Your task to perform on an android device: check data usage Image 0: 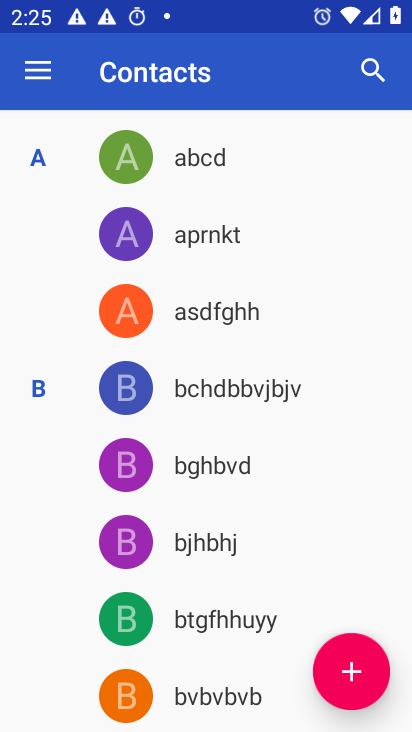
Step 0: press home button
Your task to perform on an android device: check data usage Image 1: 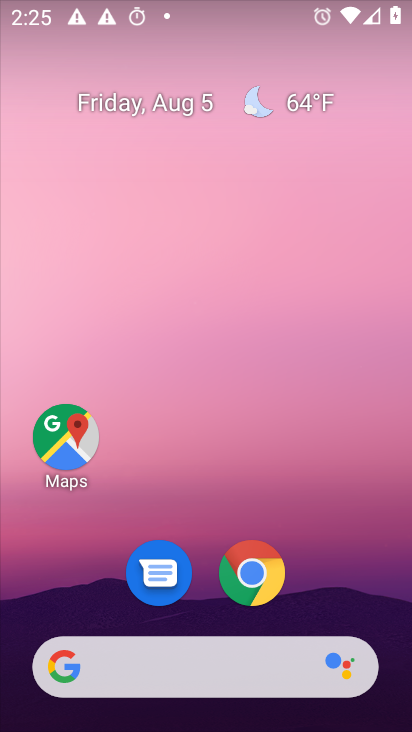
Step 1: drag from (347, 591) to (346, 236)
Your task to perform on an android device: check data usage Image 2: 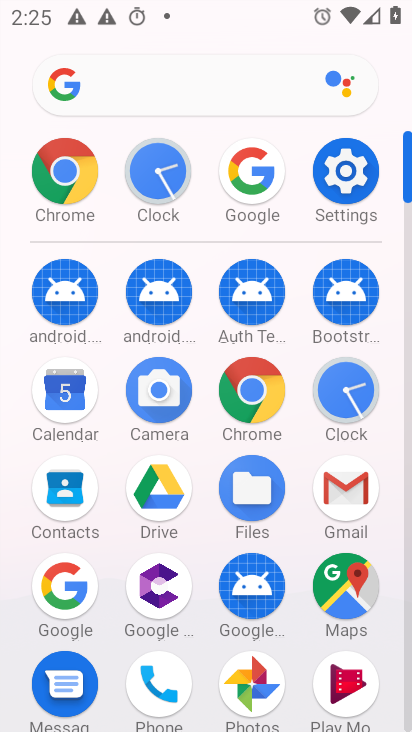
Step 2: click (348, 170)
Your task to perform on an android device: check data usage Image 3: 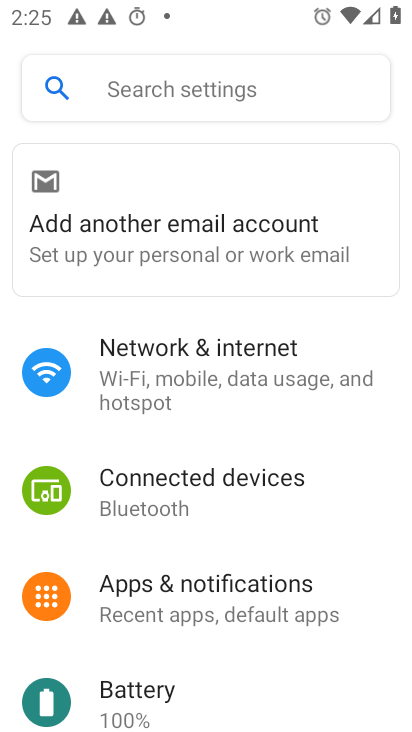
Step 3: drag from (350, 545) to (346, 429)
Your task to perform on an android device: check data usage Image 4: 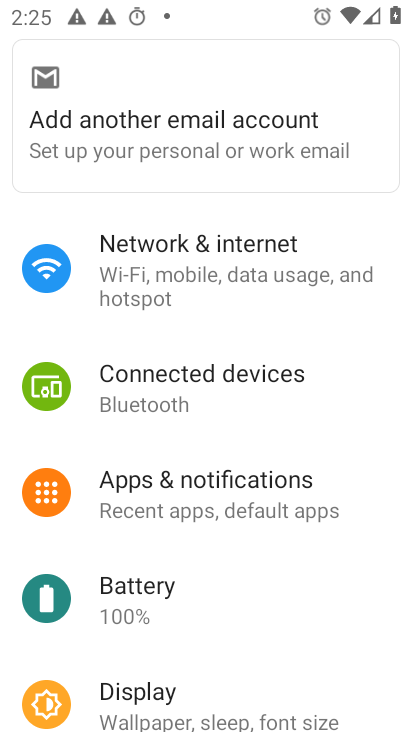
Step 4: drag from (328, 578) to (344, 433)
Your task to perform on an android device: check data usage Image 5: 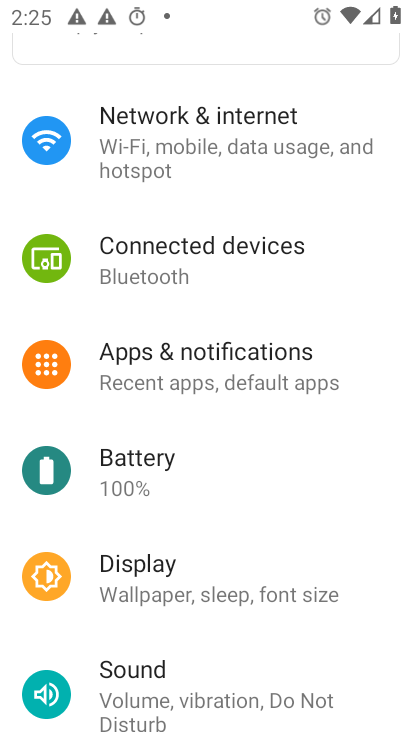
Step 5: drag from (367, 519) to (354, 378)
Your task to perform on an android device: check data usage Image 6: 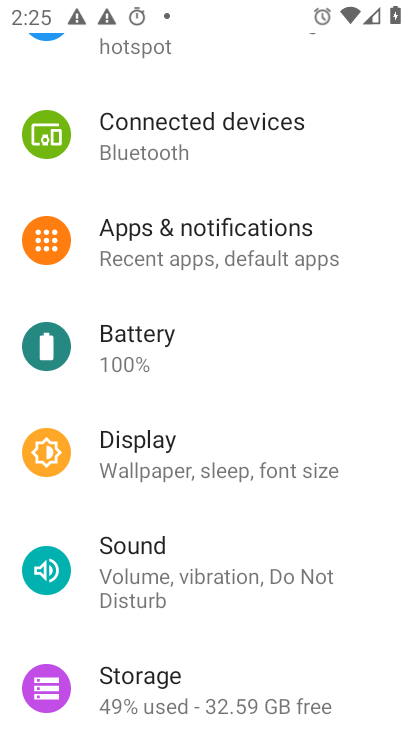
Step 6: drag from (353, 606) to (357, 462)
Your task to perform on an android device: check data usage Image 7: 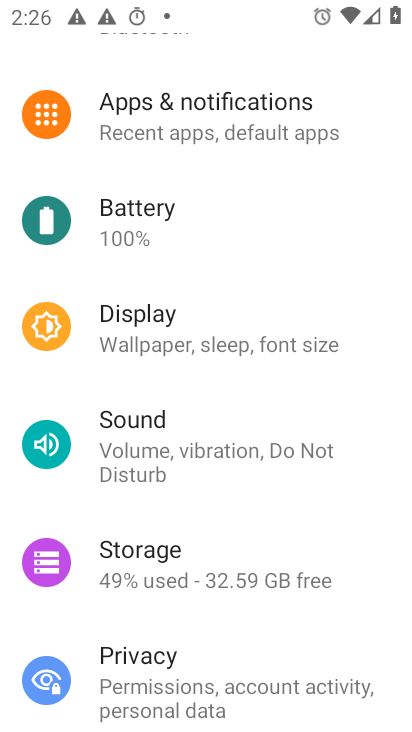
Step 7: drag from (337, 600) to (353, 348)
Your task to perform on an android device: check data usage Image 8: 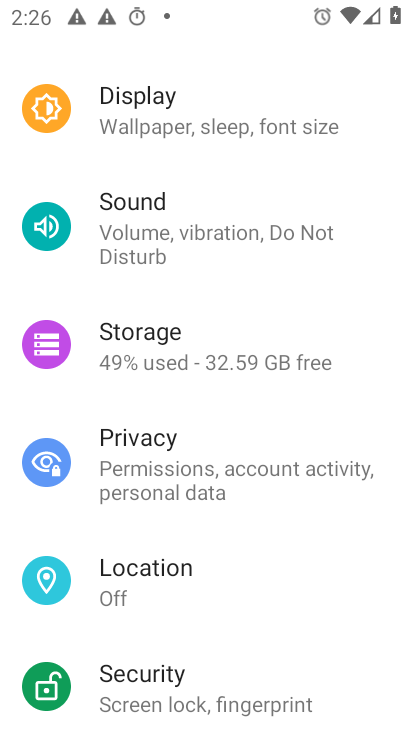
Step 8: drag from (348, 559) to (348, 422)
Your task to perform on an android device: check data usage Image 9: 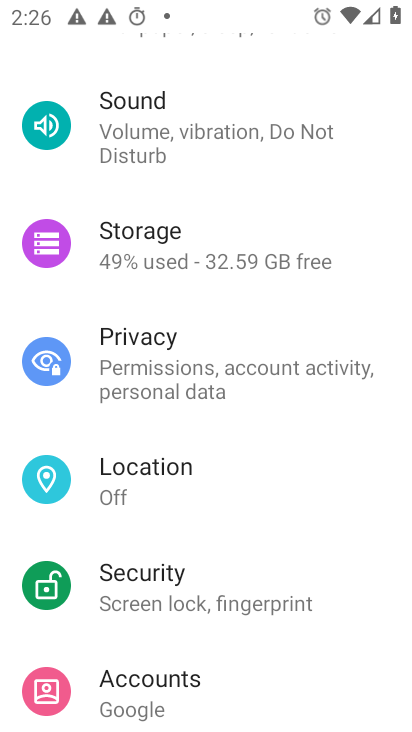
Step 9: drag from (346, 560) to (354, 417)
Your task to perform on an android device: check data usage Image 10: 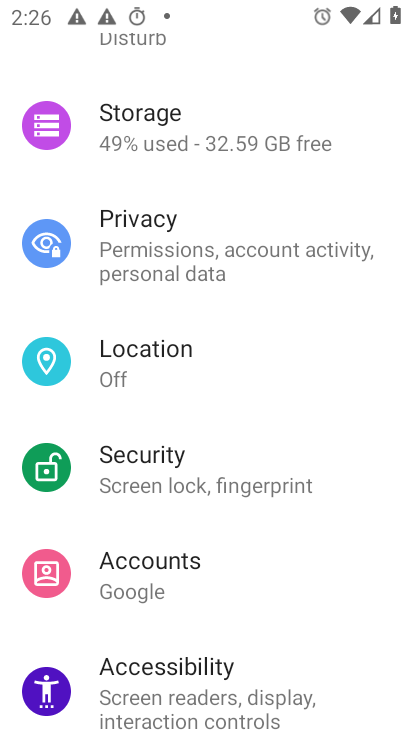
Step 10: drag from (354, 294) to (356, 441)
Your task to perform on an android device: check data usage Image 11: 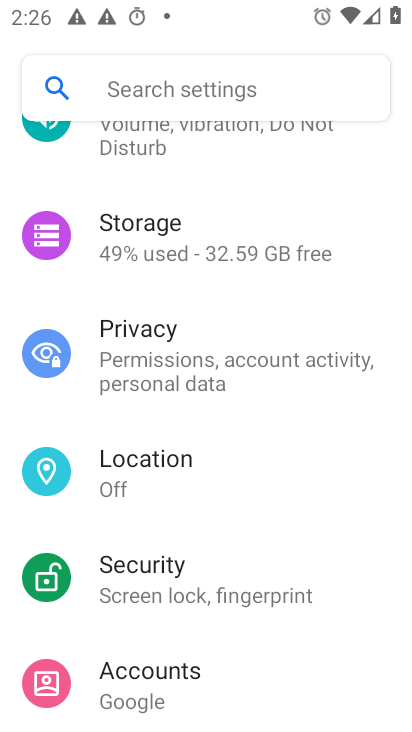
Step 11: drag from (380, 231) to (381, 311)
Your task to perform on an android device: check data usage Image 12: 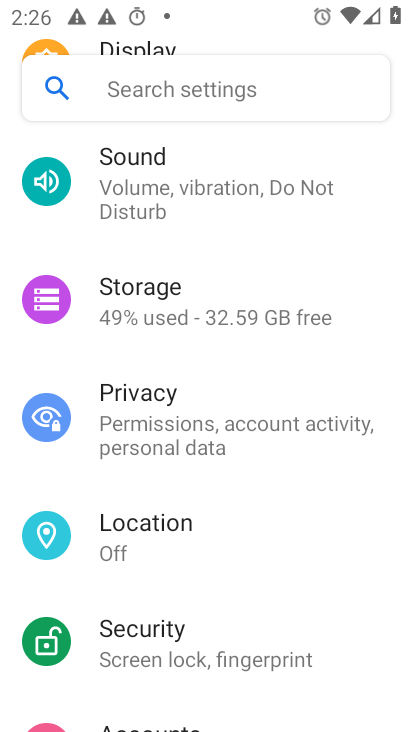
Step 12: drag from (363, 203) to (371, 357)
Your task to perform on an android device: check data usage Image 13: 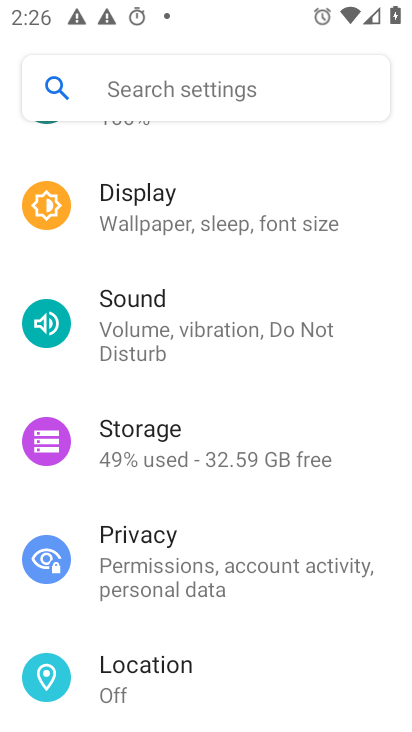
Step 13: drag from (373, 216) to (379, 385)
Your task to perform on an android device: check data usage Image 14: 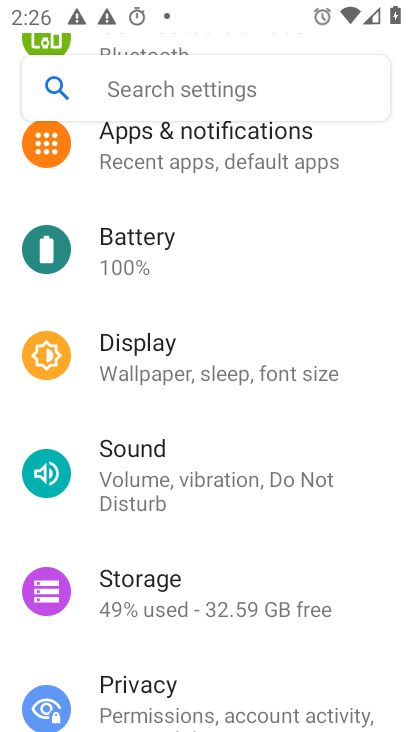
Step 14: drag from (368, 158) to (364, 356)
Your task to perform on an android device: check data usage Image 15: 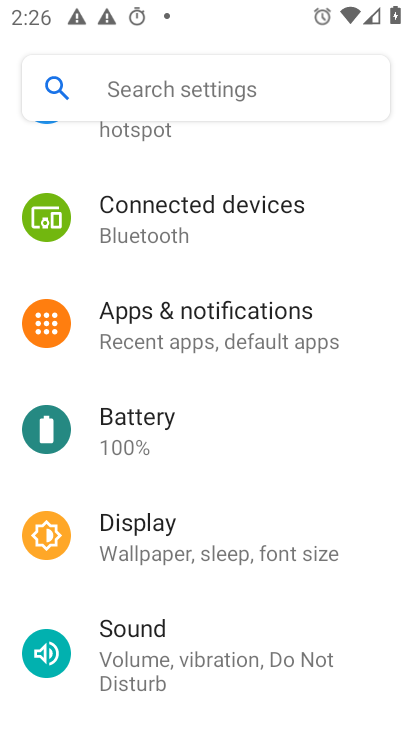
Step 15: drag from (355, 145) to (350, 353)
Your task to perform on an android device: check data usage Image 16: 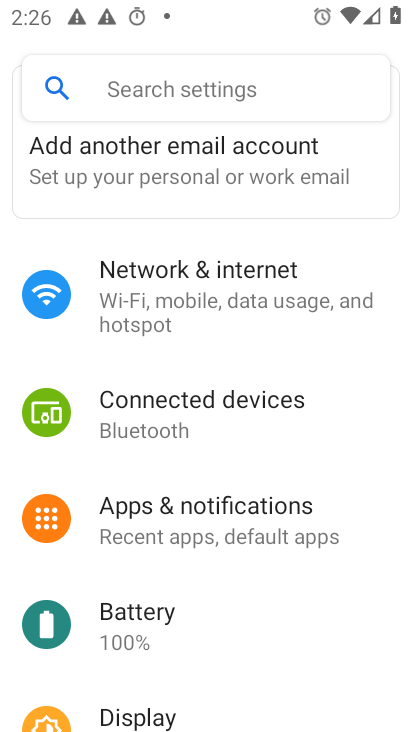
Step 16: click (229, 287)
Your task to perform on an android device: check data usage Image 17: 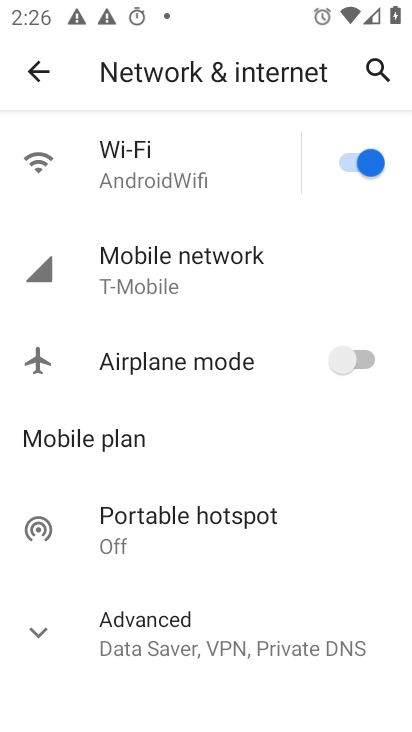
Step 17: click (214, 249)
Your task to perform on an android device: check data usage Image 18: 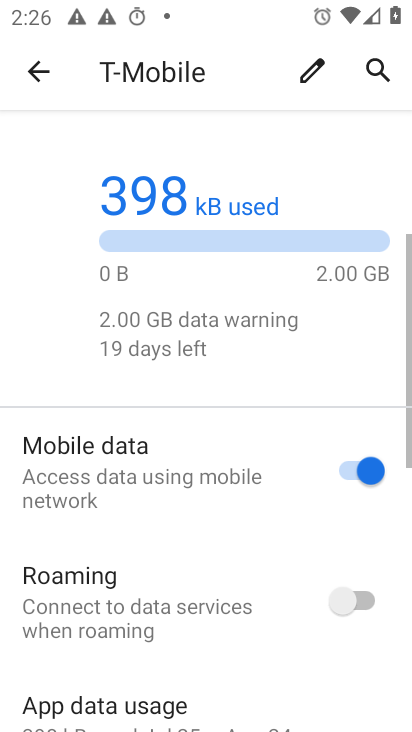
Step 18: drag from (238, 485) to (234, 291)
Your task to perform on an android device: check data usage Image 19: 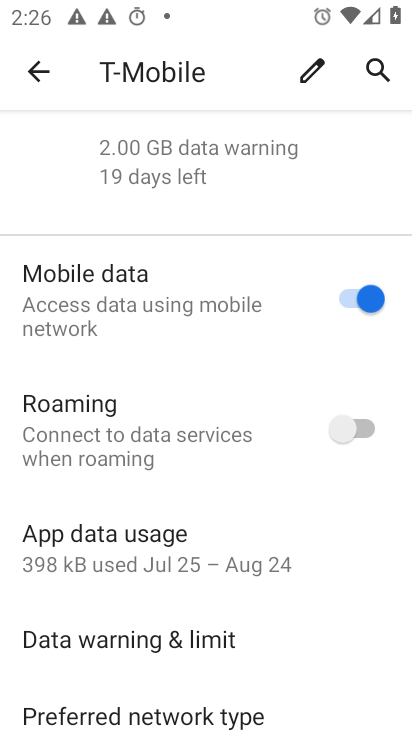
Step 19: drag from (225, 530) to (243, 382)
Your task to perform on an android device: check data usage Image 20: 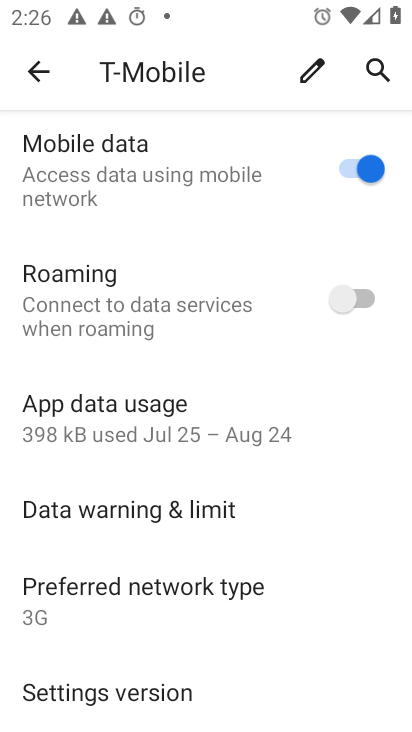
Step 20: click (224, 409)
Your task to perform on an android device: check data usage Image 21: 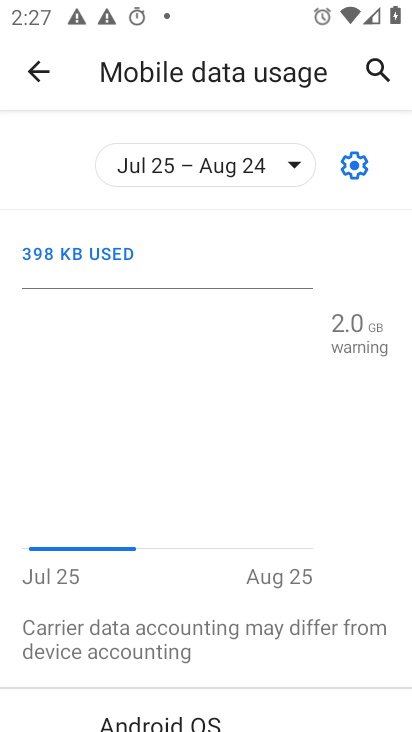
Step 21: task complete